Your task to perform on an android device: turn on improve location accuracy Image 0: 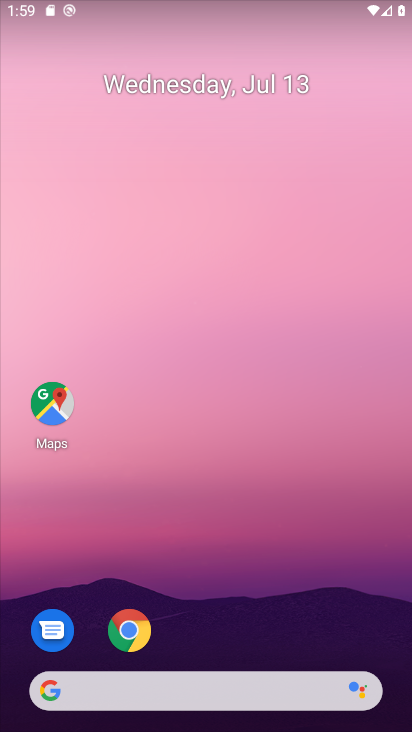
Step 0: drag from (154, 650) to (242, 150)
Your task to perform on an android device: turn on improve location accuracy Image 1: 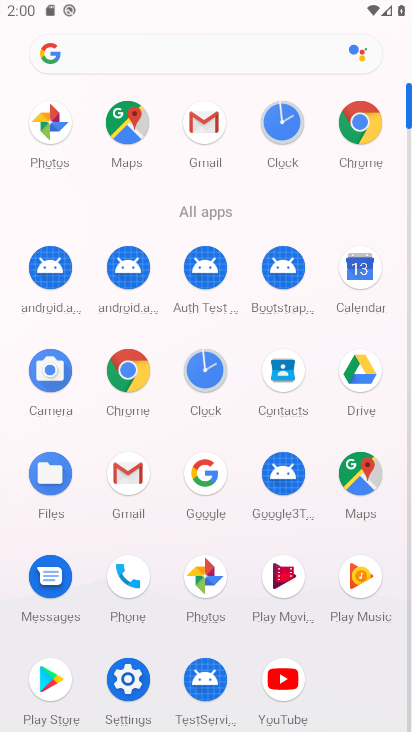
Step 1: click (117, 677)
Your task to perform on an android device: turn on improve location accuracy Image 2: 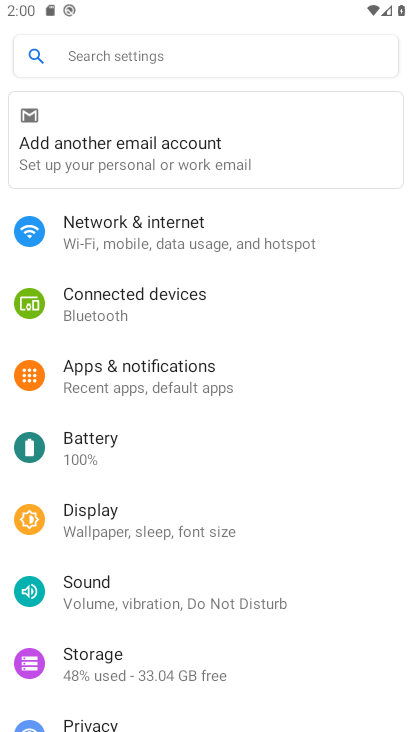
Step 2: drag from (98, 623) to (182, 401)
Your task to perform on an android device: turn on improve location accuracy Image 3: 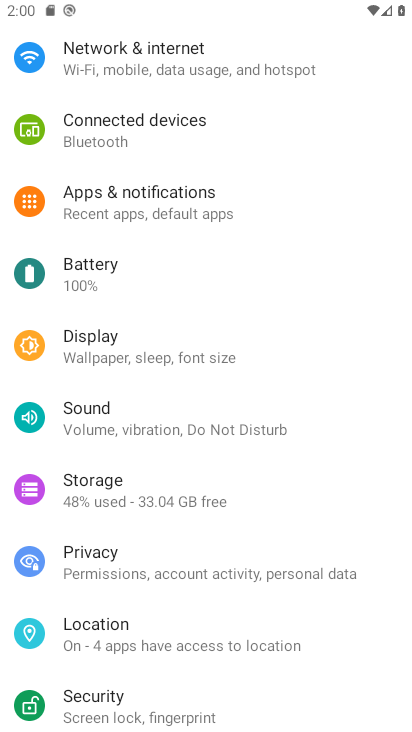
Step 3: click (124, 642)
Your task to perform on an android device: turn on improve location accuracy Image 4: 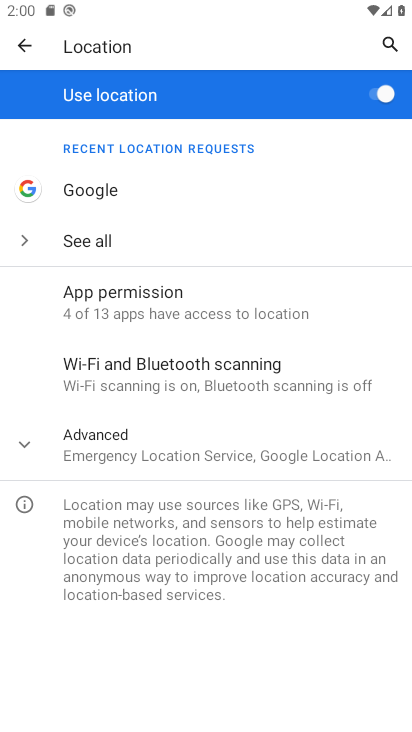
Step 4: click (156, 451)
Your task to perform on an android device: turn on improve location accuracy Image 5: 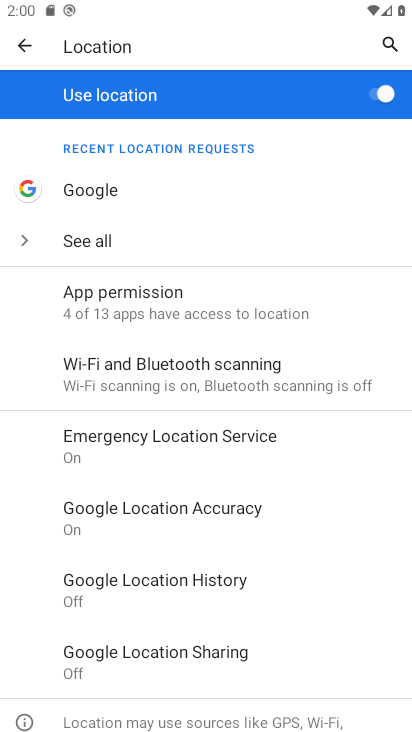
Step 5: click (172, 521)
Your task to perform on an android device: turn on improve location accuracy Image 6: 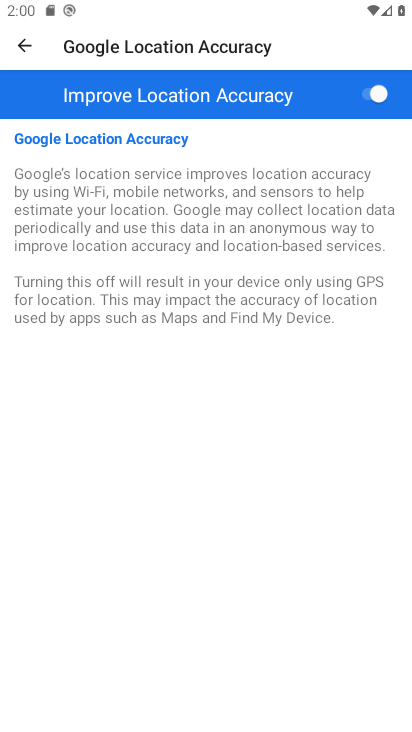
Step 6: task complete